Your task to perform on an android device: Play the last video I watched on Youtube Image 0: 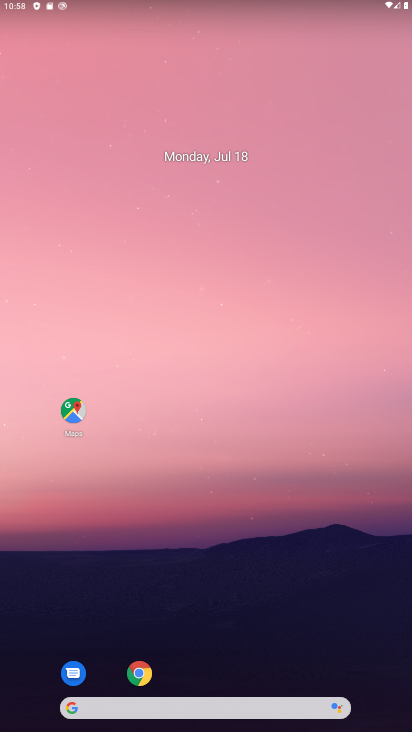
Step 0: press home button
Your task to perform on an android device: Play the last video I watched on Youtube Image 1: 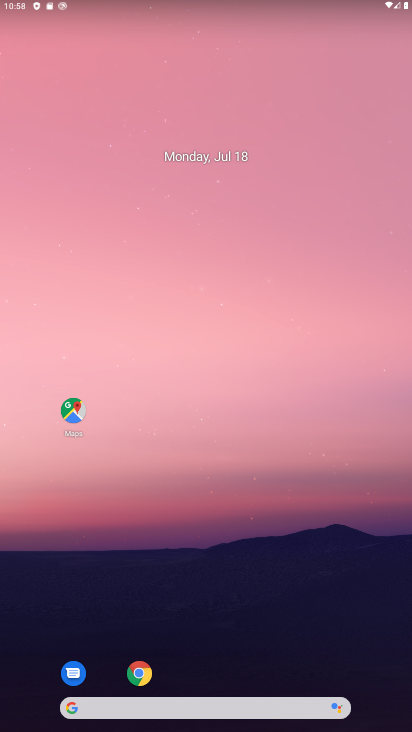
Step 1: drag from (211, 681) to (235, 16)
Your task to perform on an android device: Play the last video I watched on Youtube Image 2: 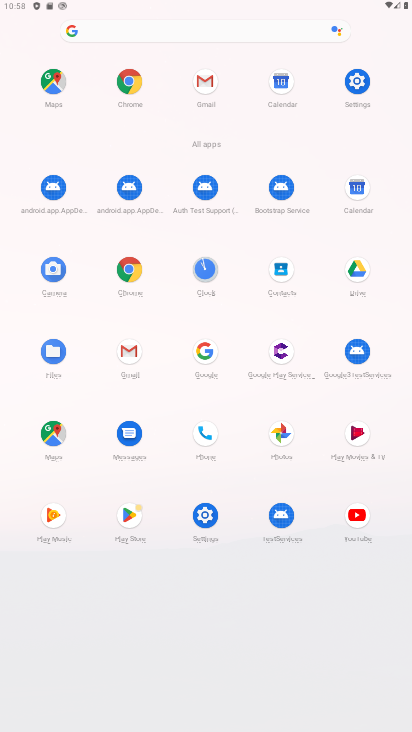
Step 2: click (355, 511)
Your task to perform on an android device: Play the last video I watched on Youtube Image 3: 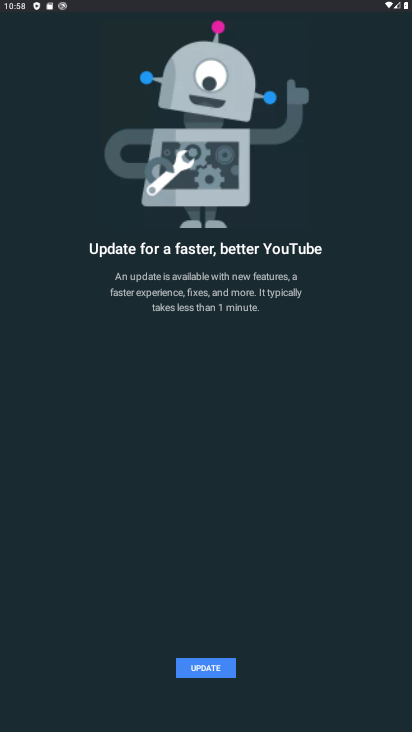
Step 3: click (206, 663)
Your task to perform on an android device: Play the last video I watched on Youtube Image 4: 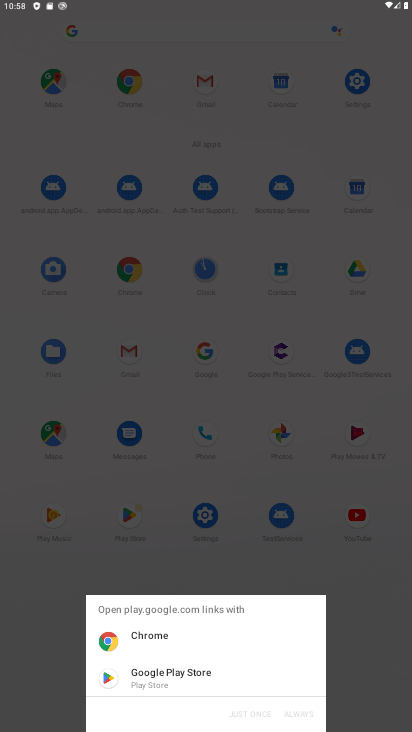
Step 4: click (184, 675)
Your task to perform on an android device: Play the last video I watched on Youtube Image 5: 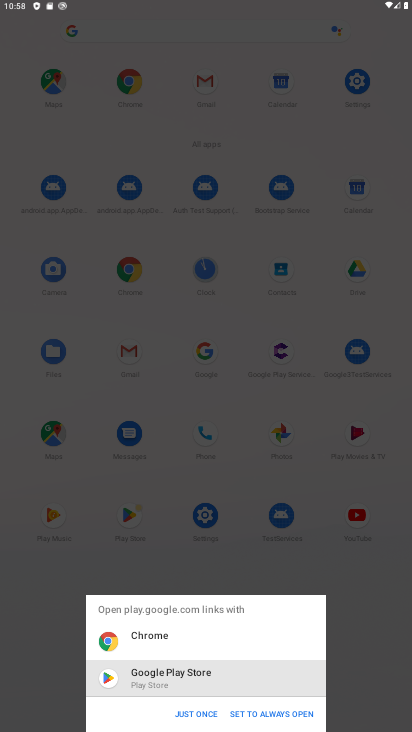
Step 5: click (199, 713)
Your task to perform on an android device: Play the last video I watched on Youtube Image 6: 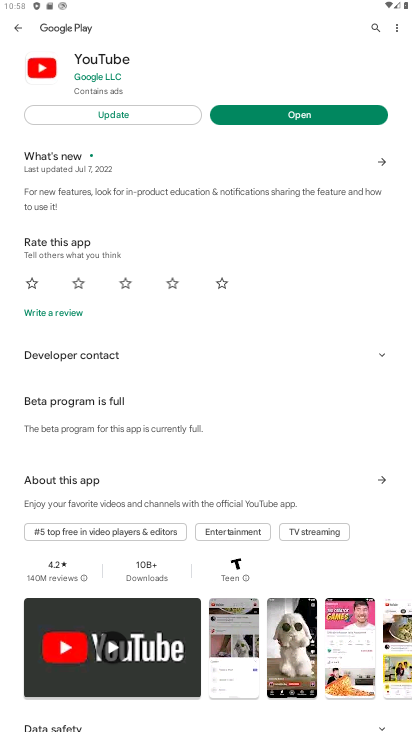
Step 6: click (118, 112)
Your task to perform on an android device: Play the last video I watched on Youtube Image 7: 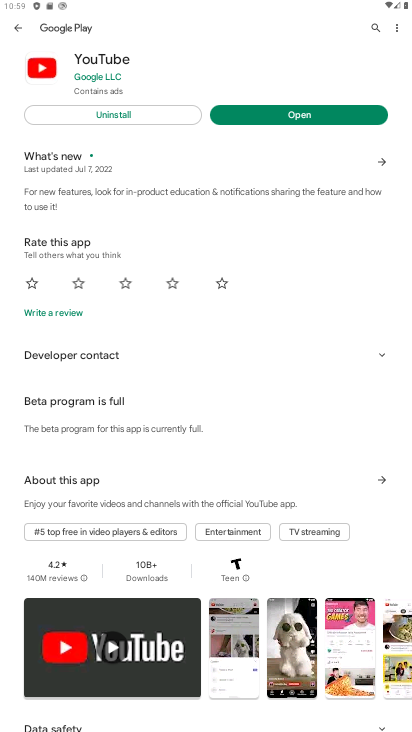
Step 7: click (296, 109)
Your task to perform on an android device: Play the last video I watched on Youtube Image 8: 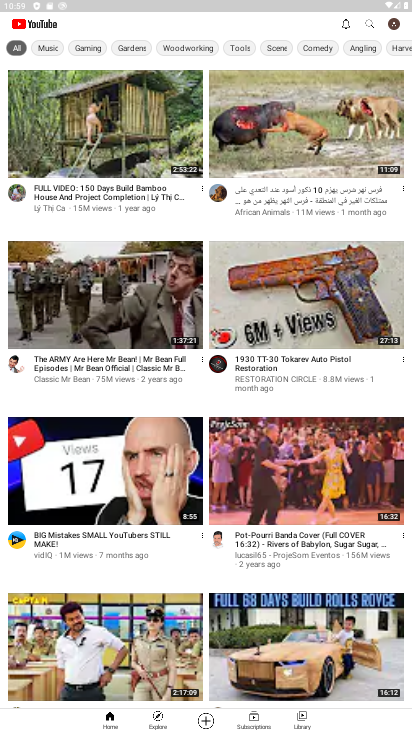
Step 8: click (303, 719)
Your task to perform on an android device: Play the last video I watched on Youtube Image 9: 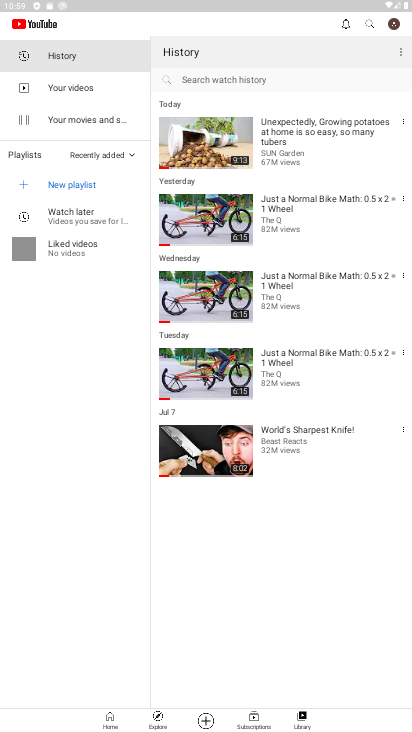
Step 9: click (231, 131)
Your task to perform on an android device: Play the last video I watched on Youtube Image 10: 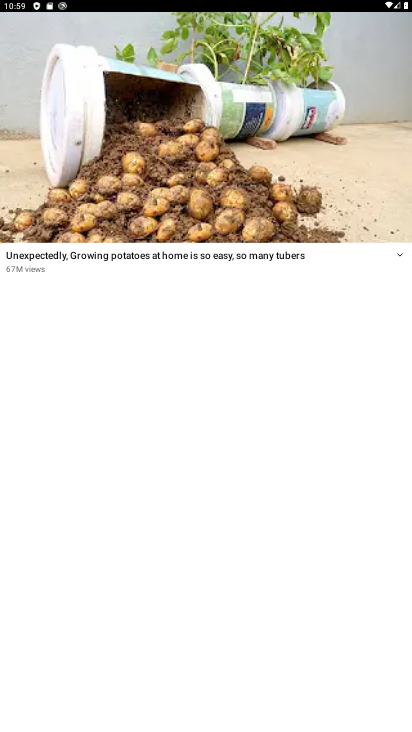
Step 10: task complete